Your task to perform on an android device: Go to wifi settings Image 0: 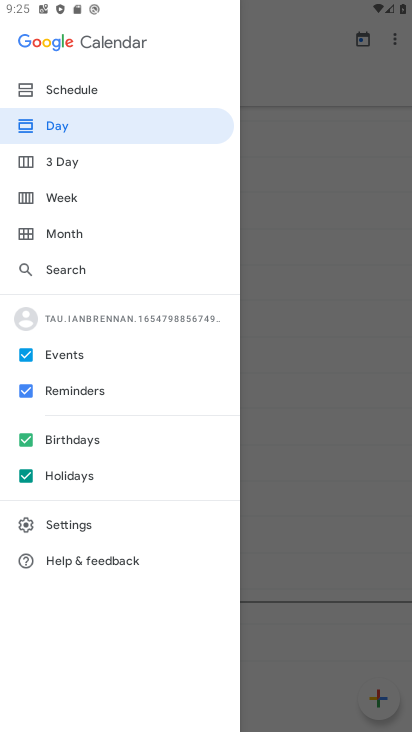
Step 0: press back button
Your task to perform on an android device: Go to wifi settings Image 1: 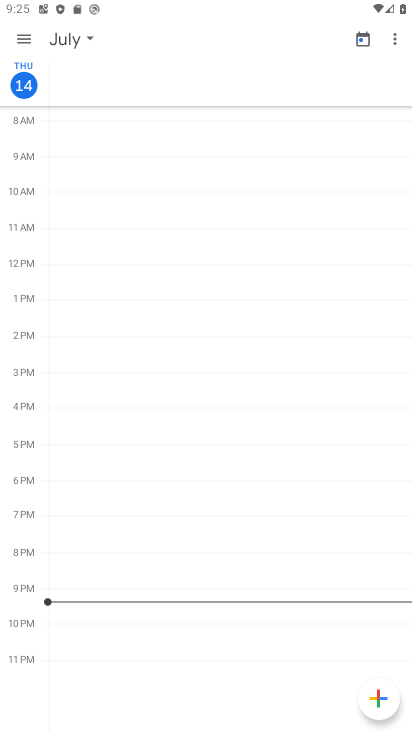
Step 1: press home button
Your task to perform on an android device: Go to wifi settings Image 2: 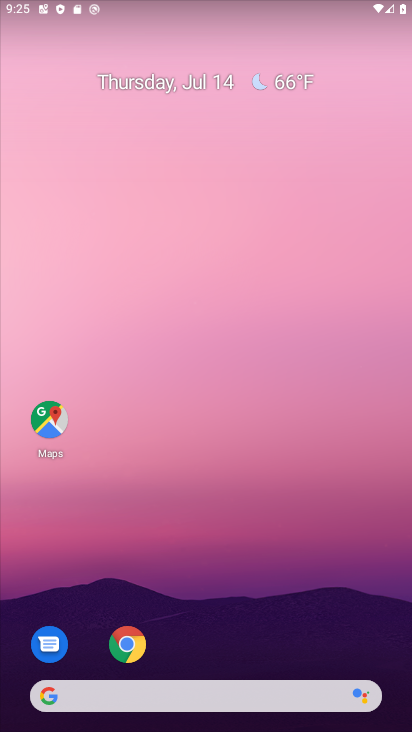
Step 2: drag from (157, 349) to (128, 143)
Your task to perform on an android device: Go to wifi settings Image 3: 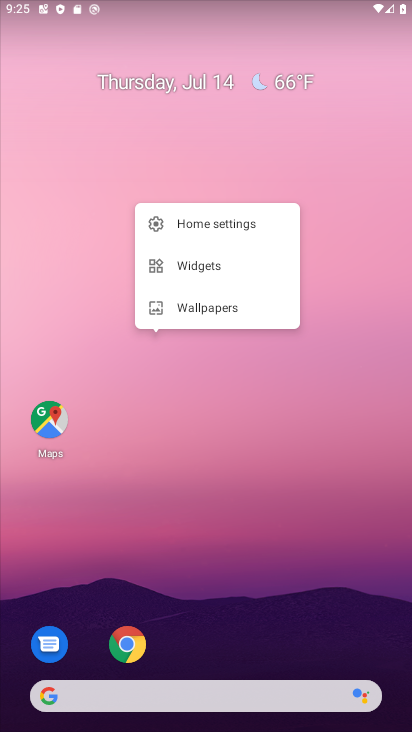
Step 3: drag from (255, 623) to (129, 77)
Your task to perform on an android device: Go to wifi settings Image 4: 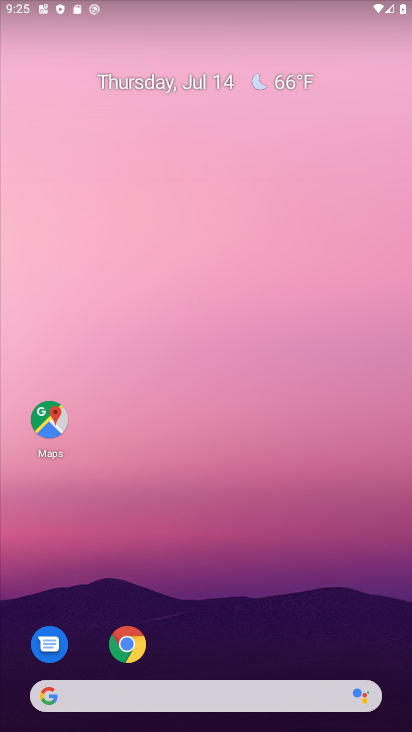
Step 4: drag from (251, 639) to (207, 128)
Your task to perform on an android device: Go to wifi settings Image 5: 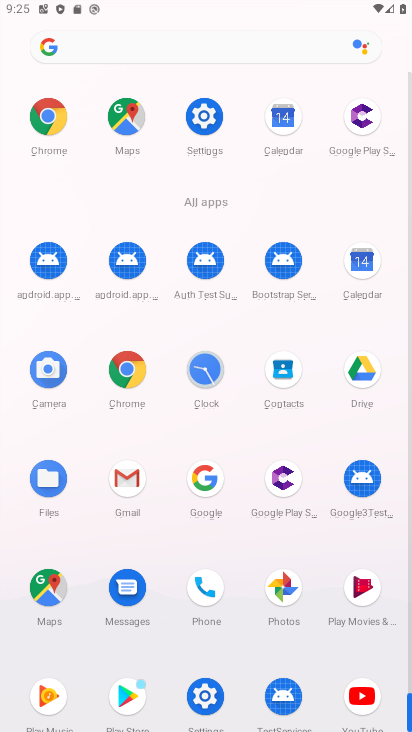
Step 5: click (205, 120)
Your task to perform on an android device: Go to wifi settings Image 6: 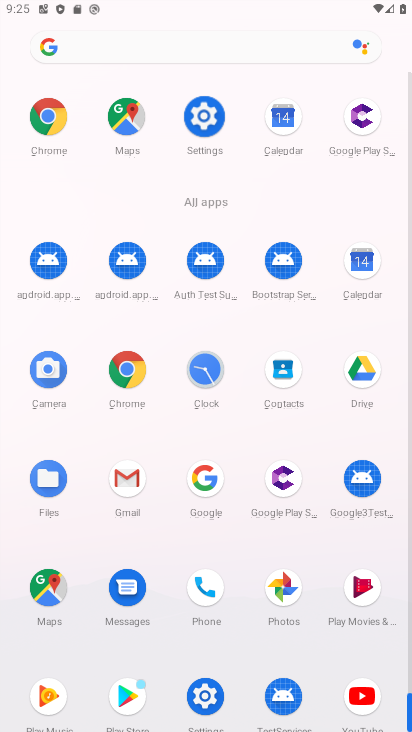
Step 6: click (204, 119)
Your task to perform on an android device: Go to wifi settings Image 7: 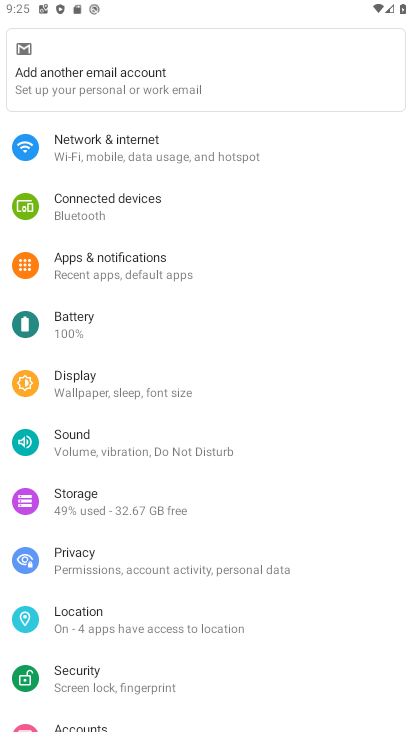
Step 7: drag from (92, 579) to (105, 324)
Your task to perform on an android device: Go to wifi settings Image 8: 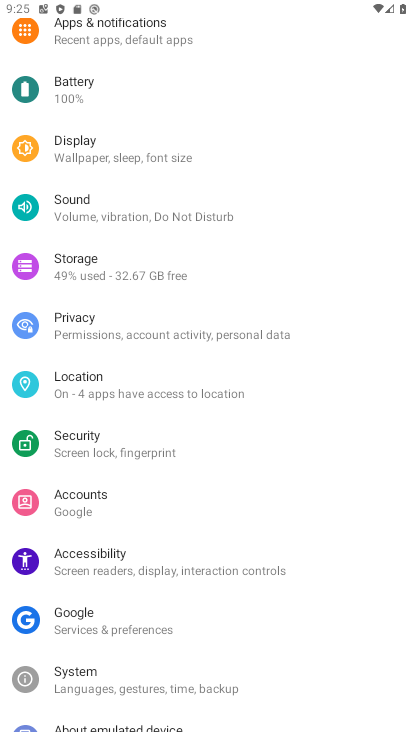
Step 8: drag from (63, 157) to (51, 532)
Your task to perform on an android device: Go to wifi settings Image 9: 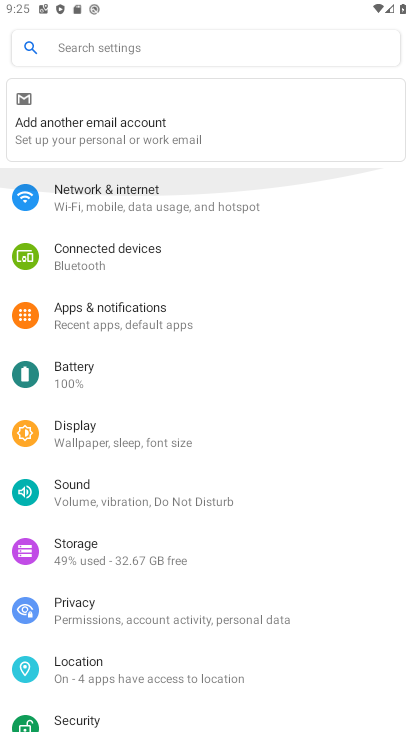
Step 9: drag from (140, 178) to (144, 552)
Your task to perform on an android device: Go to wifi settings Image 10: 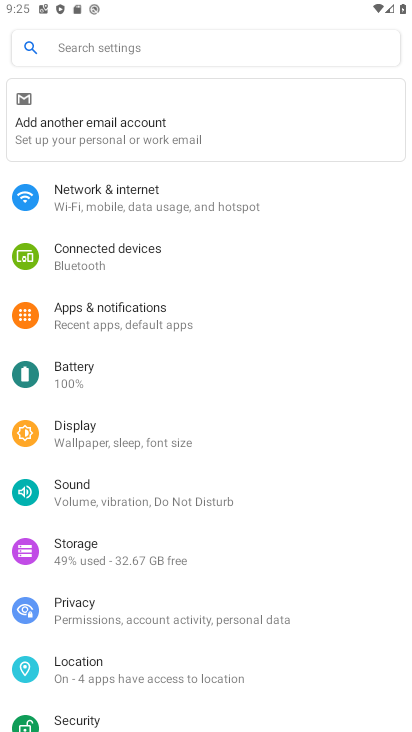
Step 10: click (118, 199)
Your task to perform on an android device: Go to wifi settings Image 11: 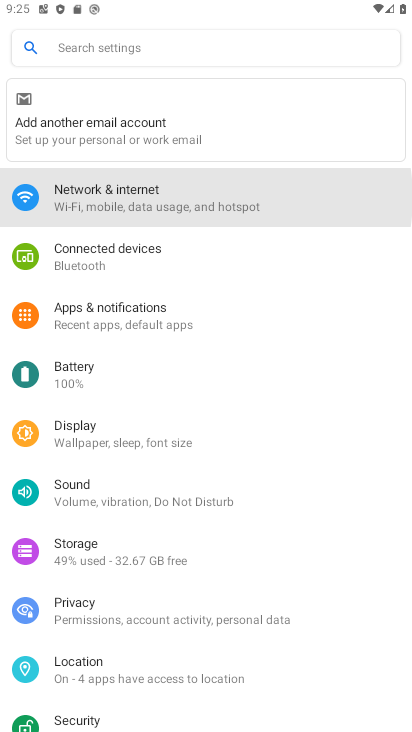
Step 11: click (118, 199)
Your task to perform on an android device: Go to wifi settings Image 12: 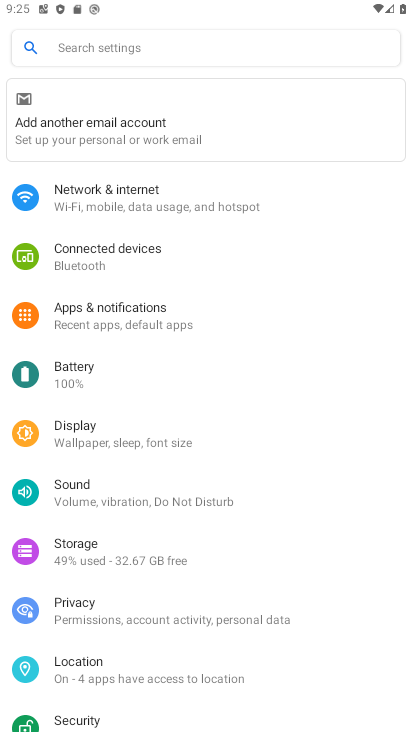
Step 12: click (119, 198)
Your task to perform on an android device: Go to wifi settings Image 13: 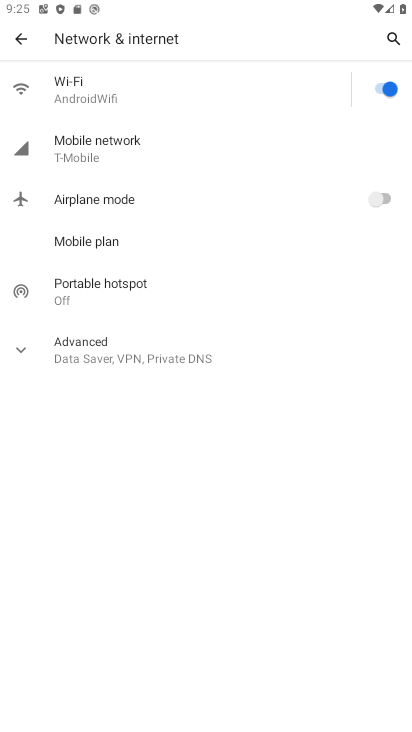
Step 13: task complete